Your task to perform on an android device: What is the news today? Image 0: 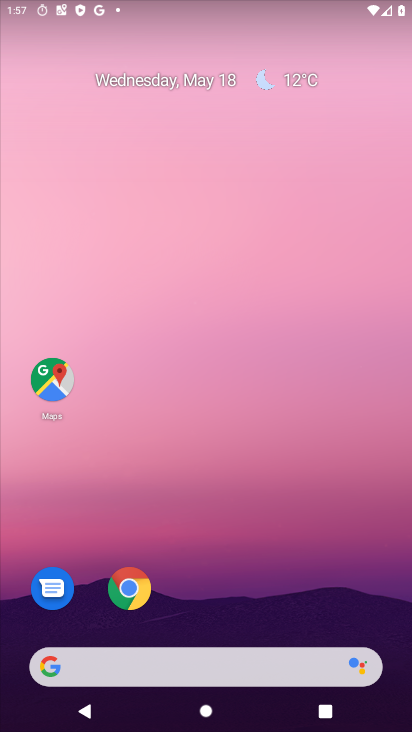
Step 0: drag from (187, 640) to (235, 106)
Your task to perform on an android device: What is the news today? Image 1: 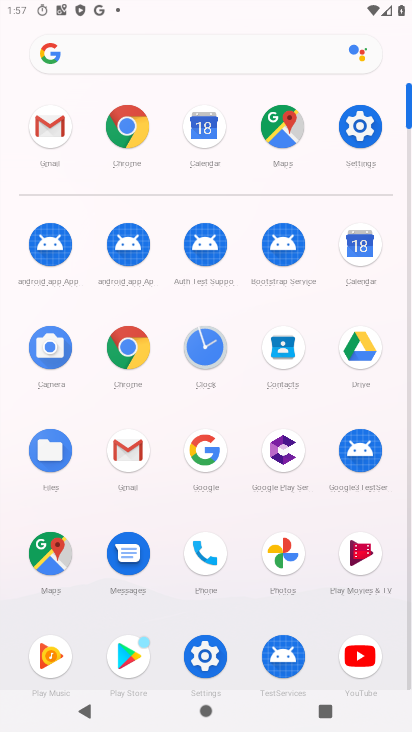
Step 1: click (201, 49)
Your task to perform on an android device: What is the news today? Image 2: 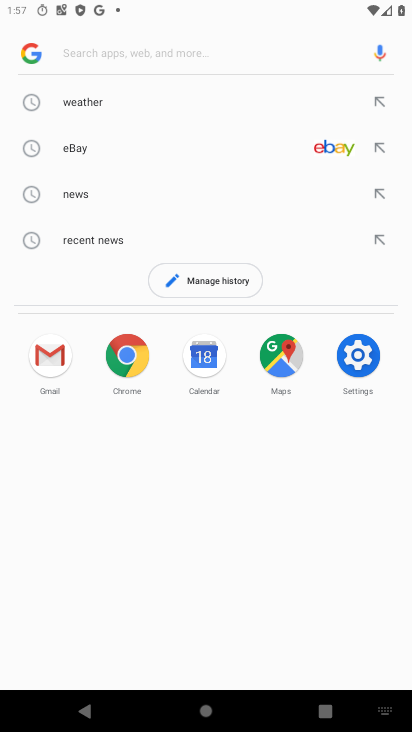
Step 2: type "news today"
Your task to perform on an android device: What is the news today? Image 3: 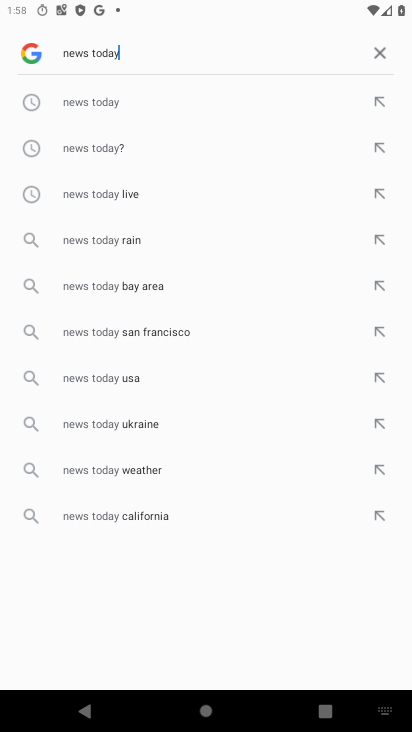
Step 3: click (124, 92)
Your task to perform on an android device: What is the news today? Image 4: 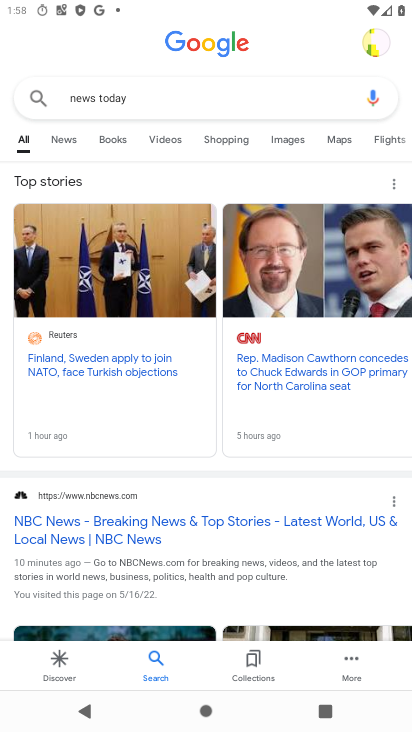
Step 4: task complete